Your task to perform on an android device: turn smart compose on in the gmail app Image 0: 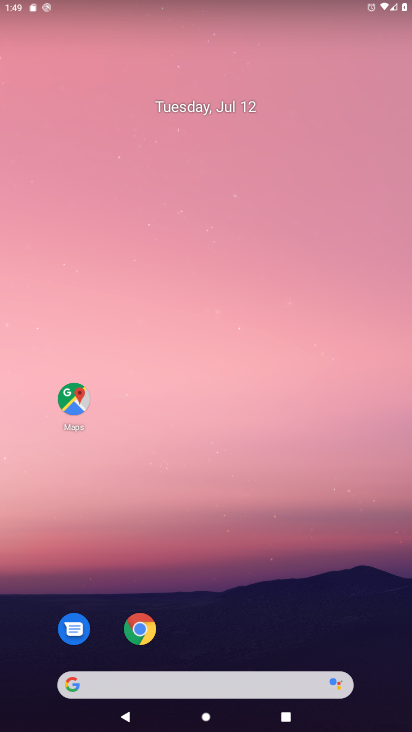
Step 0: drag from (279, 672) to (266, 64)
Your task to perform on an android device: turn smart compose on in the gmail app Image 1: 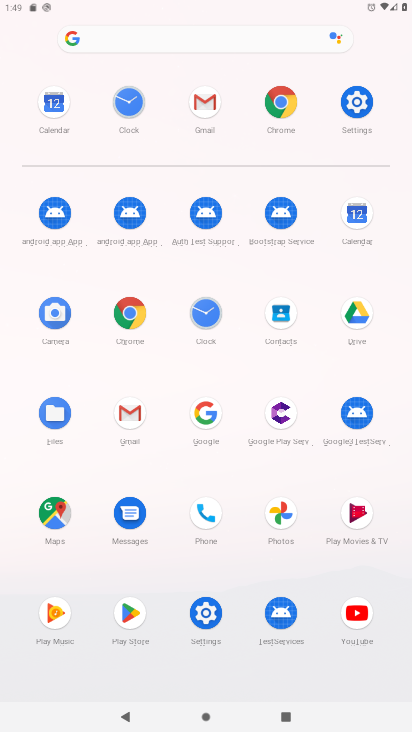
Step 1: click (139, 410)
Your task to perform on an android device: turn smart compose on in the gmail app Image 2: 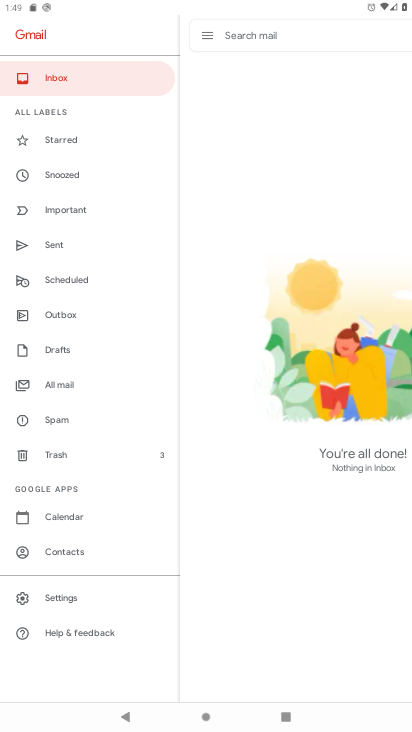
Step 2: click (88, 596)
Your task to perform on an android device: turn smart compose on in the gmail app Image 3: 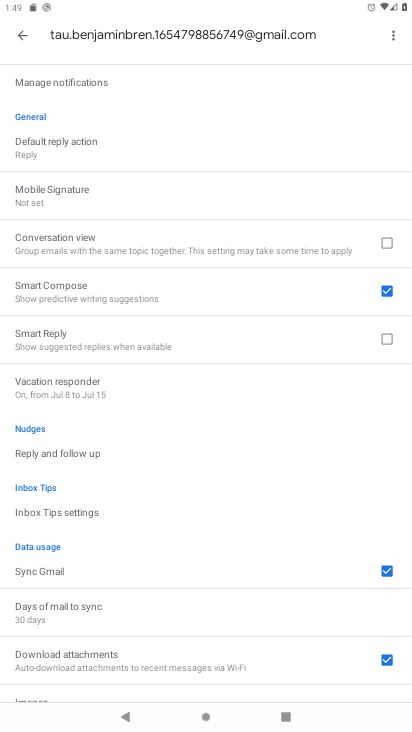
Step 3: task complete